Your task to perform on an android device: Search for Italian restaurants on Maps Image 0: 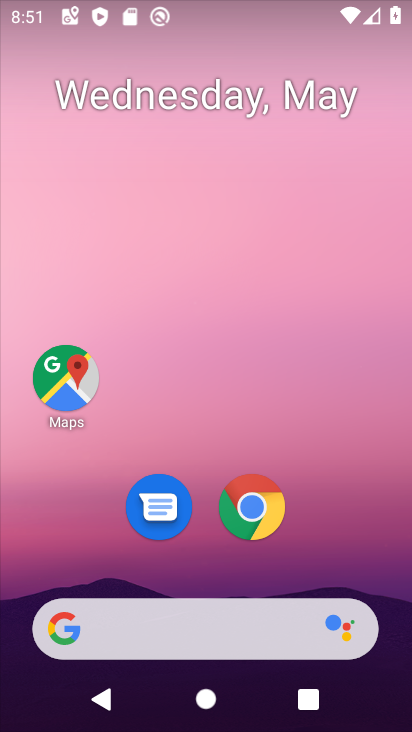
Step 0: drag from (355, 561) to (294, 186)
Your task to perform on an android device: Search for Italian restaurants on Maps Image 1: 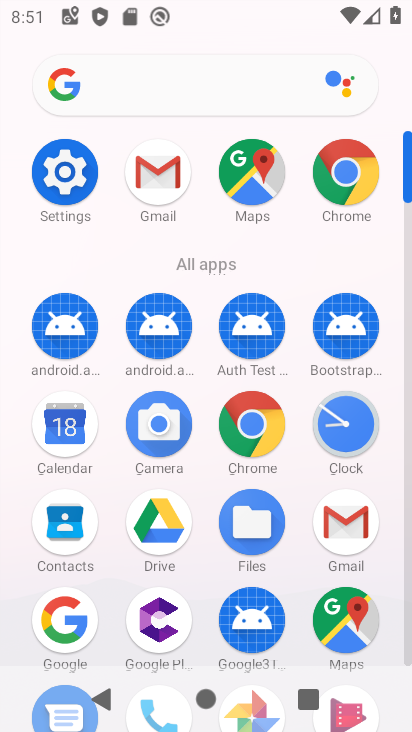
Step 1: click (247, 190)
Your task to perform on an android device: Search for Italian restaurants on Maps Image 2: 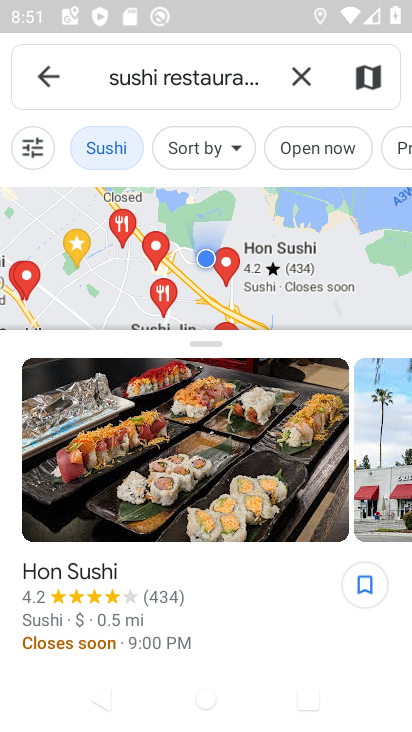
Step 2: click (311, 77)
Your task to perform on an android device: Search for Italian restaurants on Maps Image 3: 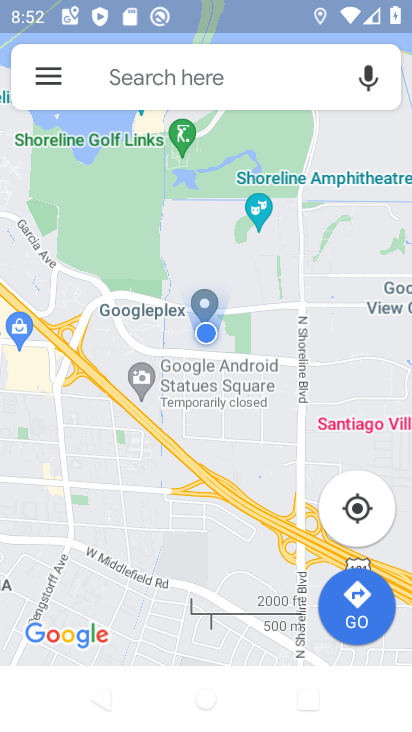
Step 3: click (263, 89)
Your task to perform on an android device: Search for Italian restaurants on Maps Image 4: 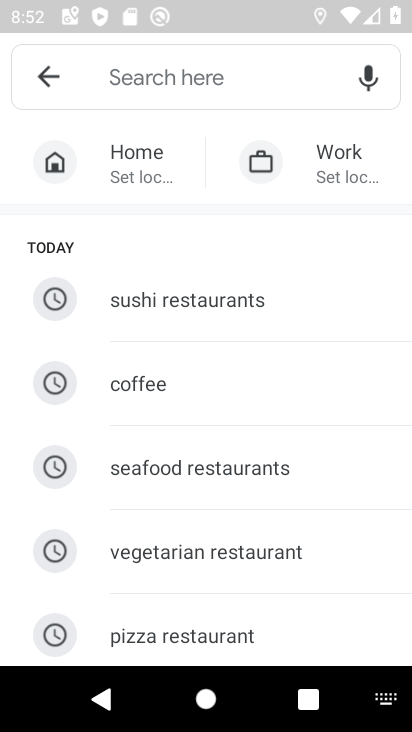
Step 4: type "Italian restaurants"
Your task to perform on an android device: Search for Italian restaurants on Maps Image 5: 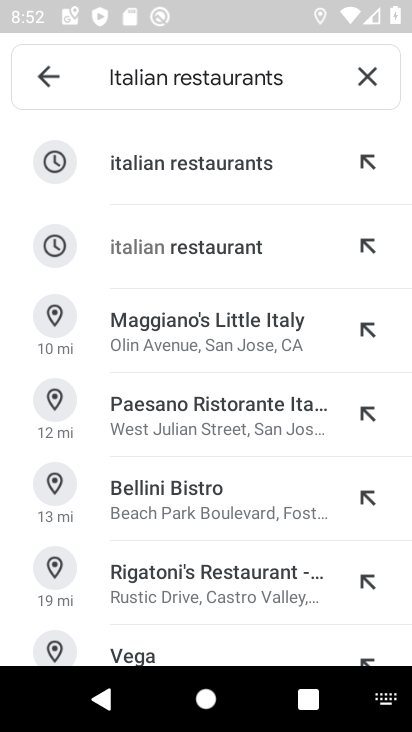
Step 5: click (251, 176)
Your task to perform on an android device: Search for Italian restaurants on Maps Image 6: 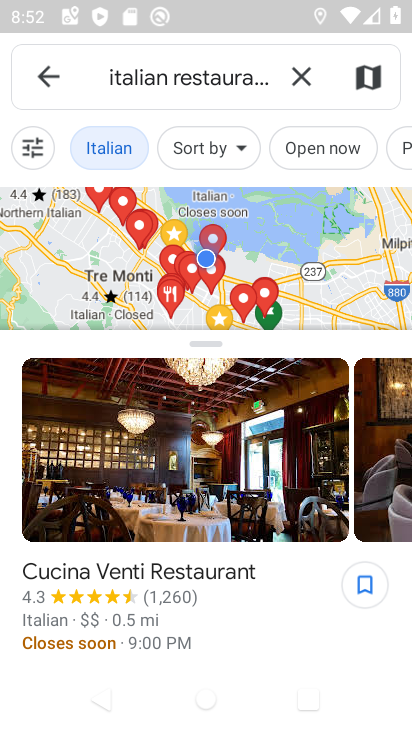
Step 6: task complete